Your task to perform on an android device: create a new album in the google photos Image 0: 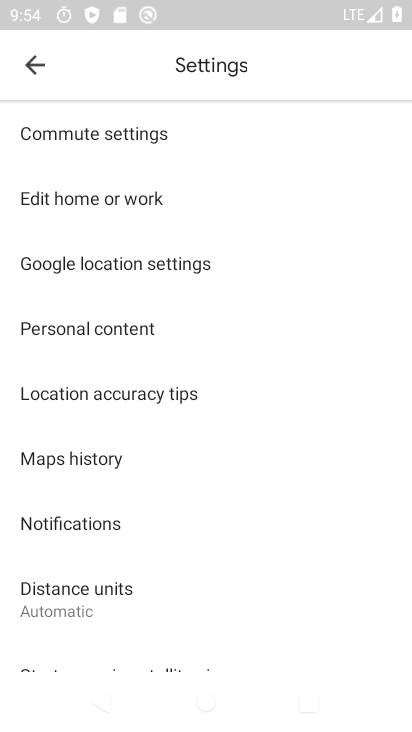
Step 0: press home button
Your task to perform on an android device: create a new album in the google photos Image 1: 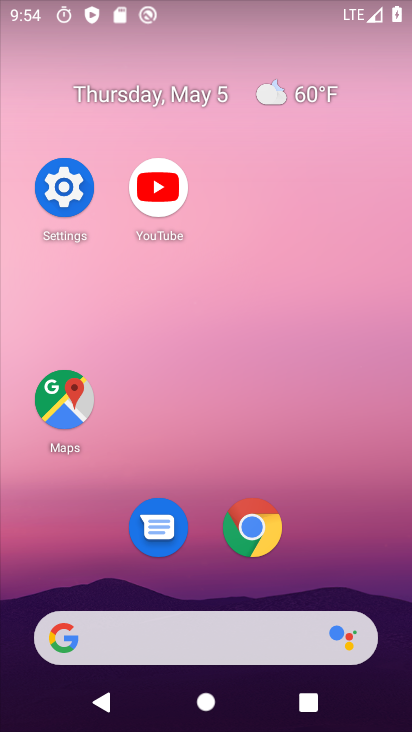
Step 1: drag from (261, 536) to (233, 155)
Your task to perform on an android device: create a new album in the google photos Image 2: 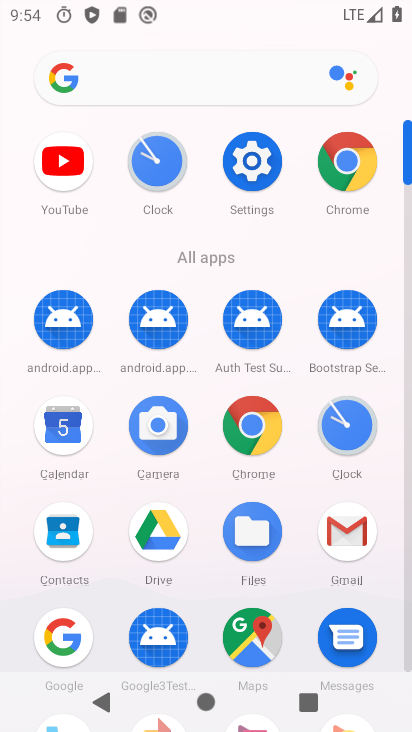
Step 2: drag from (208, 602) to (213, 257)
Your task to perform on an android device: create a new album in the google photos Image 3: 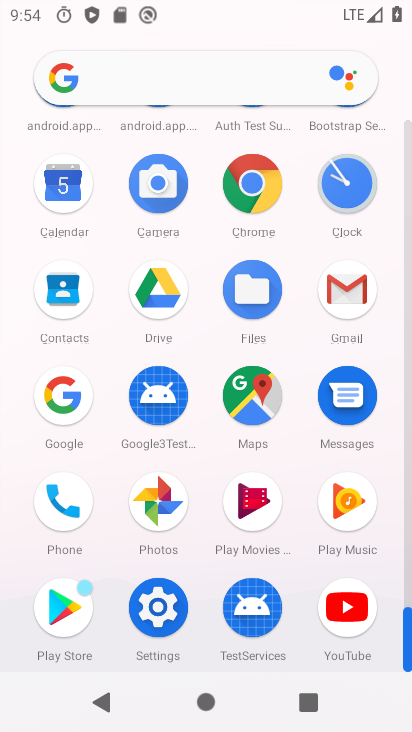
Step 3: click (161, 496)
Your task to perform on an android device: create a new album in the google photos Image 4: 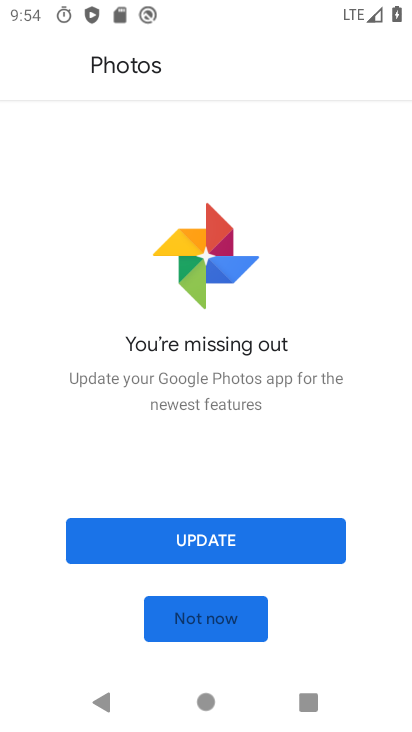
Step 4: click (261, 533)
Your task to perform on an android device: create a new album in the google photos Image 5: 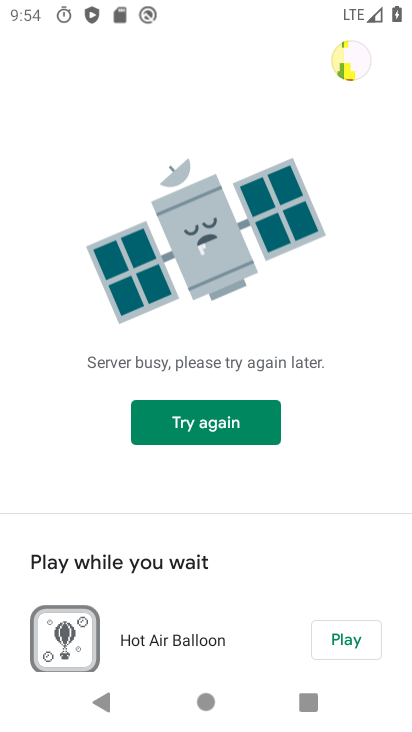
Step 5: click (248, 425)
Your task to perform on an android device: create a new album in the google photos Image 6: 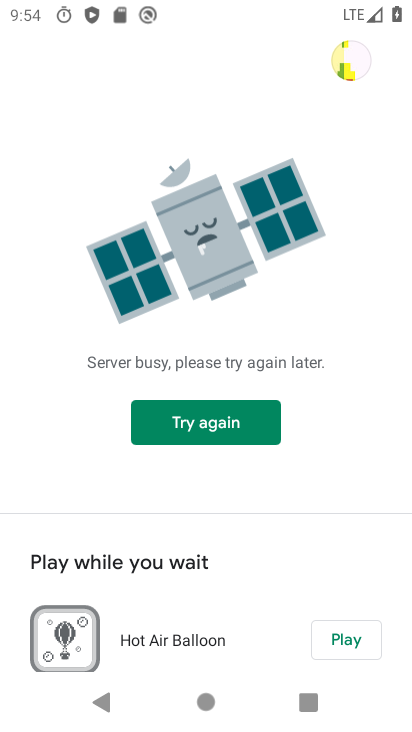
Step 6: task complete